Your task to perform on an android device: turn off wifi Image 0: 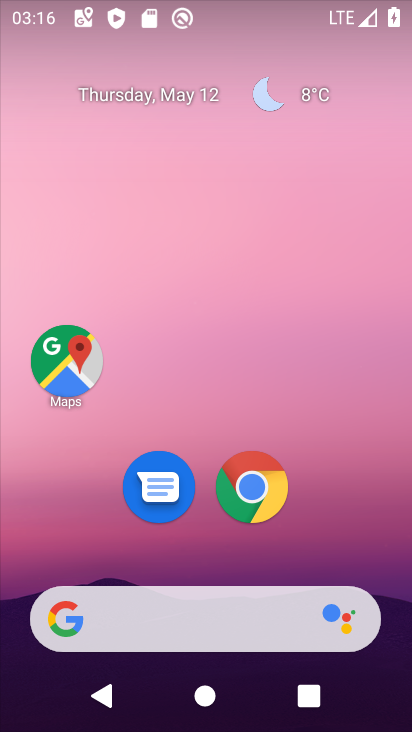
Step 0: drag from (327, 465) to (321, 126)
Your task to perform on an android device: turn off wifi Image 1: 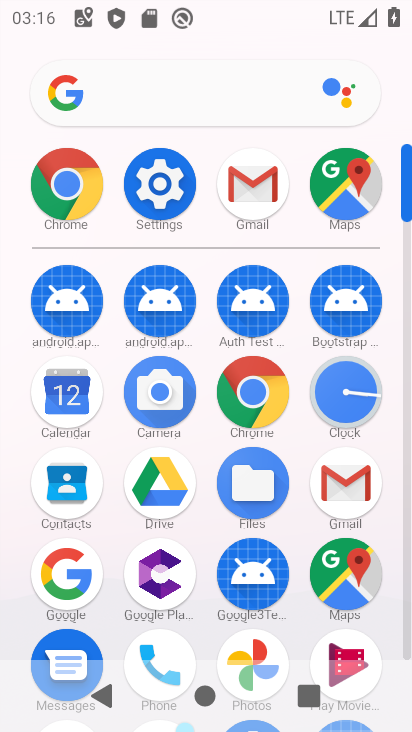
Step 1: click (156, 200)
Your task to perform on an android device: turn off wifi Image 2: 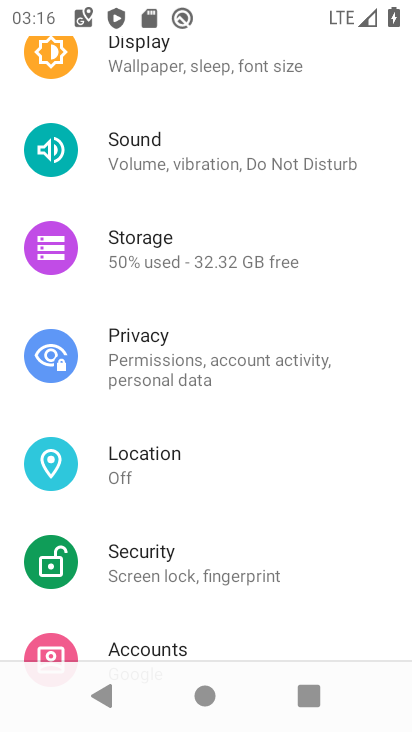
Step 2: drag from (221, 202) to (246, 559)
Your task to perform on an android device: turn off wifi Image 3: 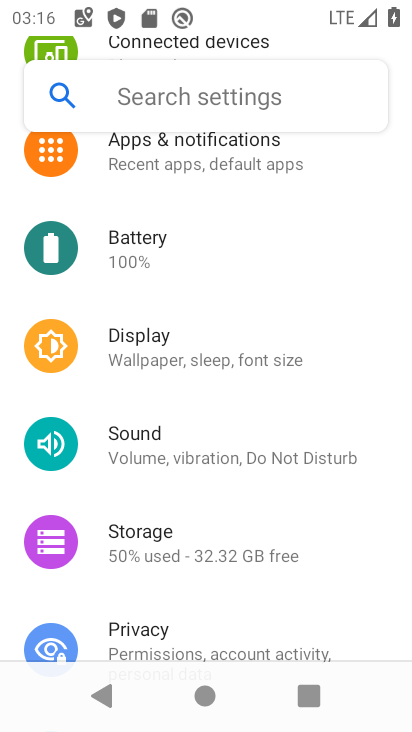
Step 3: drag from (211, 249) to (261, 574)
Your task to perform on an android device: turn off wifi Image 4: 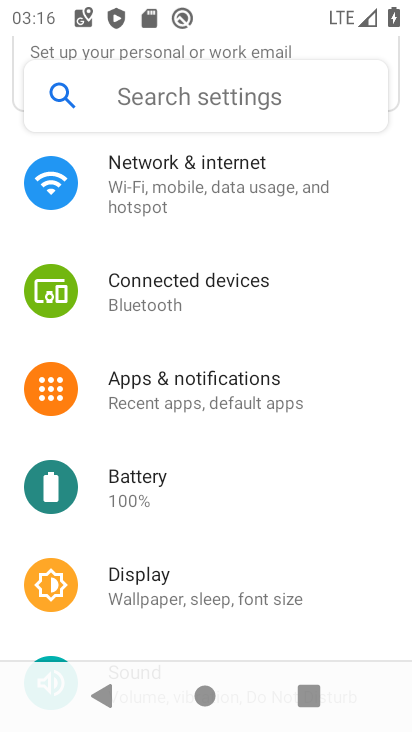
Step 4: click (203, 190)
Your task to perform on an android device: turn off wifi Image 5: 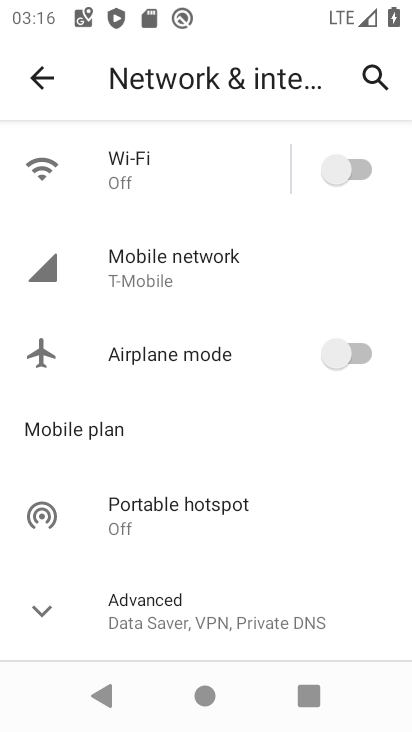
Step 5: task complete